Your task to perform on an android device: Open accessibility settings Image 0: 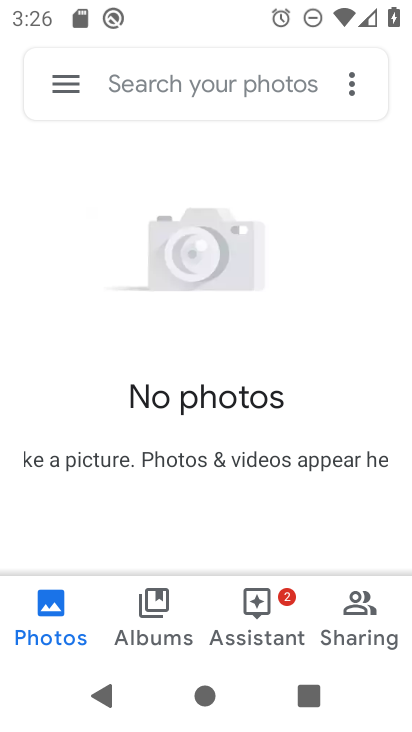
Step 0: press home button
Your task to perform on an android device: Open accessibility settings Image 1: 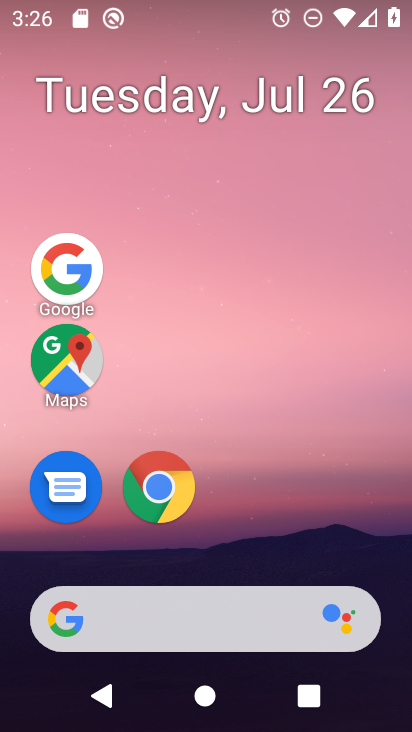
Step 1: drag from (249, 487) to (234, 54)
Your task to perform on an android device: Open accessibility settings Image 2: 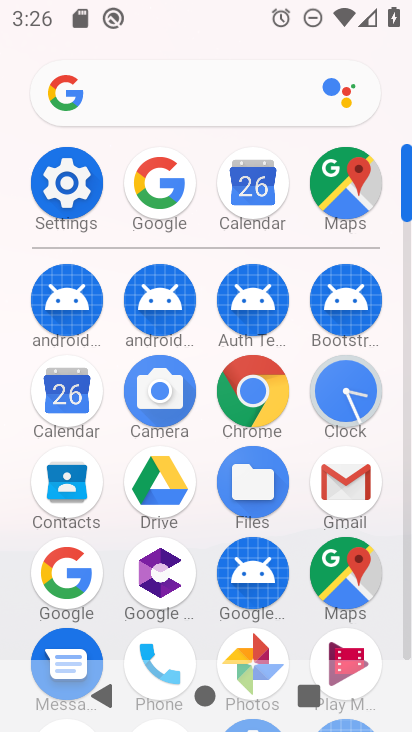
Step 2: click (88, 207)
Your task to perform on an android device: Open accessibility settings Image 3: 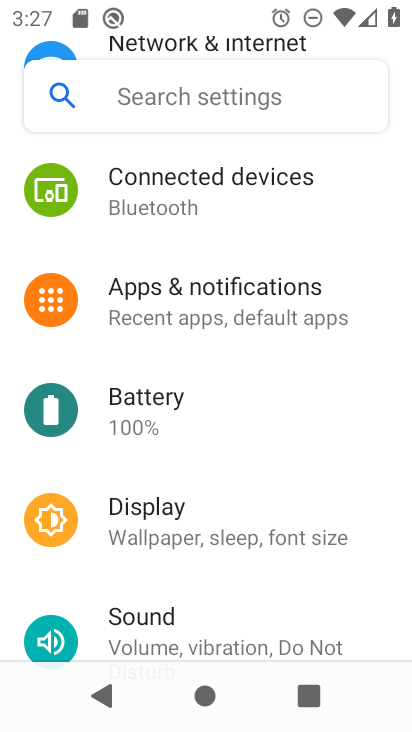
Step 3: drag from (157, 446) to (157, 106)
Your task to perform on an android device: Open accessibility settings Image 4: 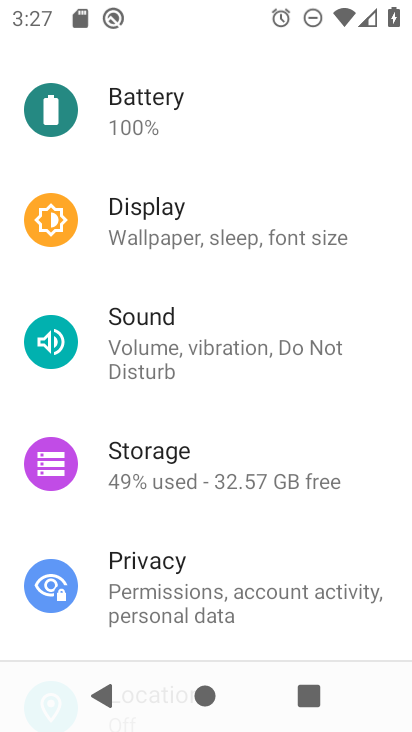
Step 4: drag from (194, 530) to (208, 199)
Your task to perform on an android device: Open accessibility settings Image 5: 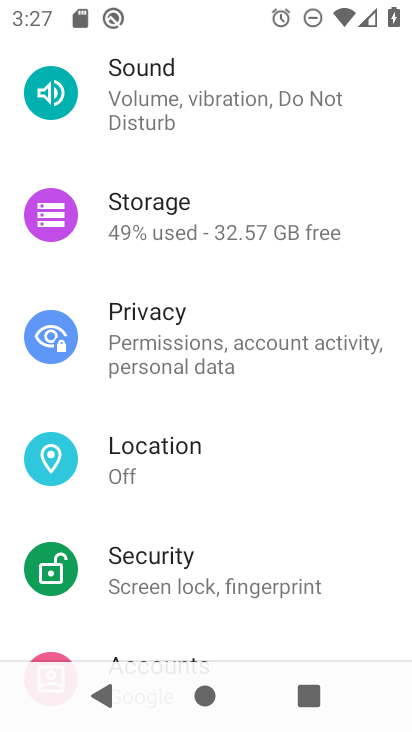
Step 5: drag from (203, 538) to (228, 179)
Your task to perform on an android device: Open accessibility settings Image 6: 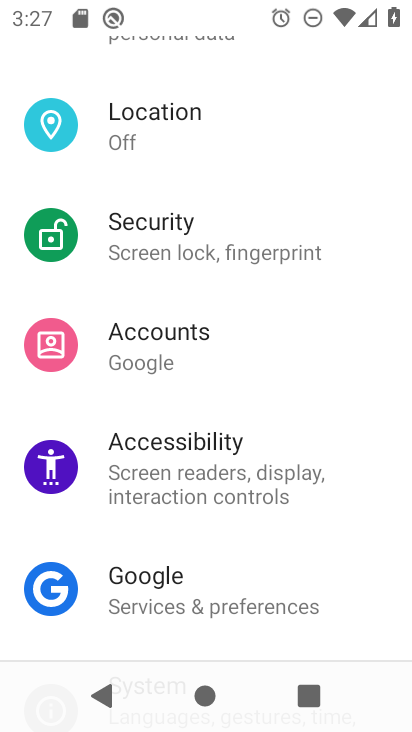
Step 6: click (213, 457)
Your task to perform on an android device: Open accessibility settings Image 7: 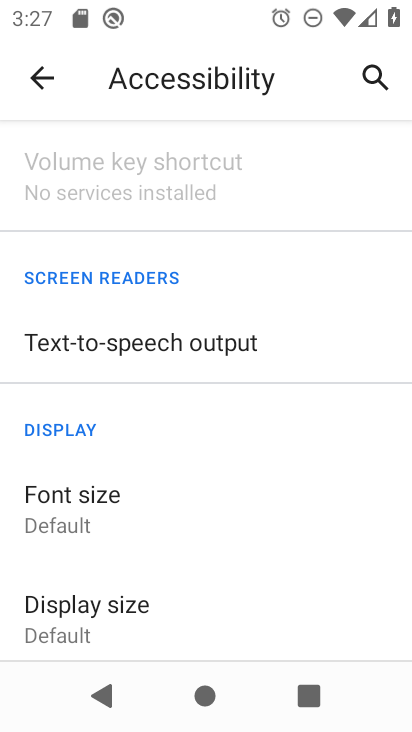
Step 7: task complete